Your task to perform on an android device: turn on wifi Image 0: 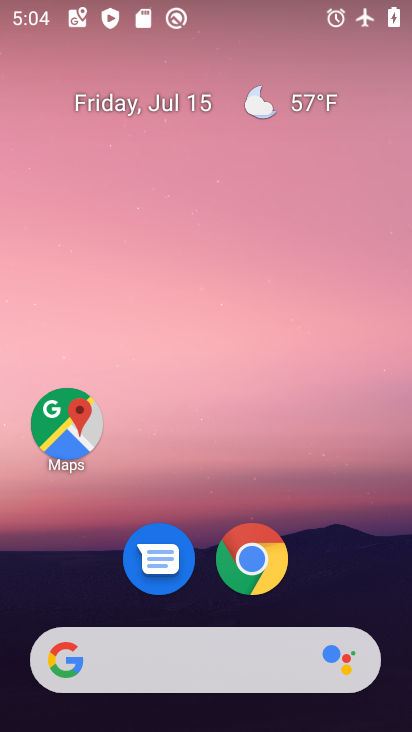
Step 0: drag from (82, 14) to (91, 581)
Your task to perform on an android device: turn on wifi Image 1: 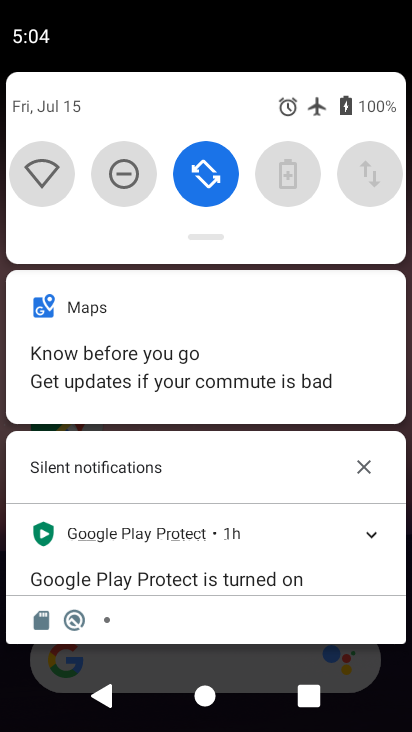
Step 1: click (41, 174)
Your task to perform on an android device: turn on wifi Image 2: 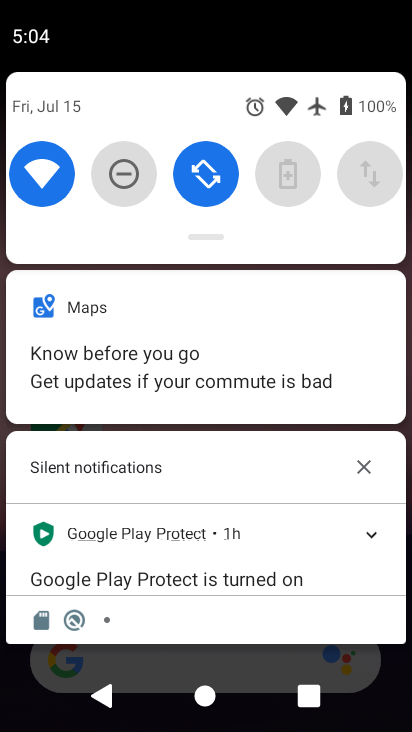
Step 2: task complete